Your task to perform on an android device: Open Google Image 0: 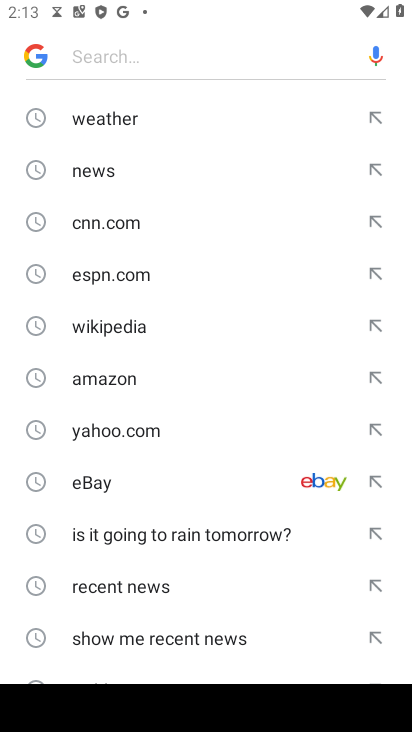
Step 0: press home button
Your task to perform on an android device: Open Google Image 1: 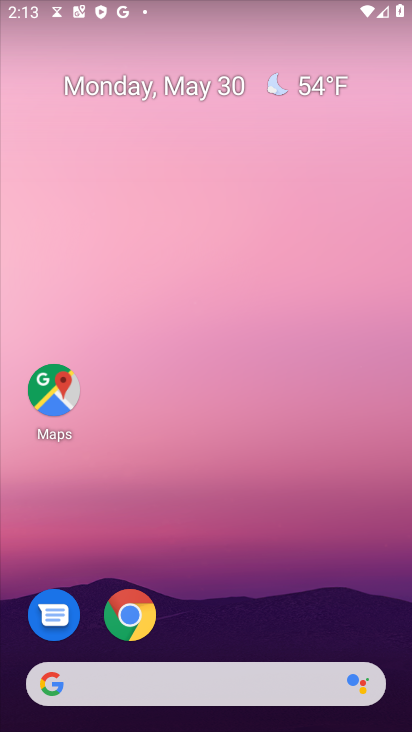
Step 1: drag from (287, 555) to (223, 82)
Your task to perform on an android device: Open Google Image 2: 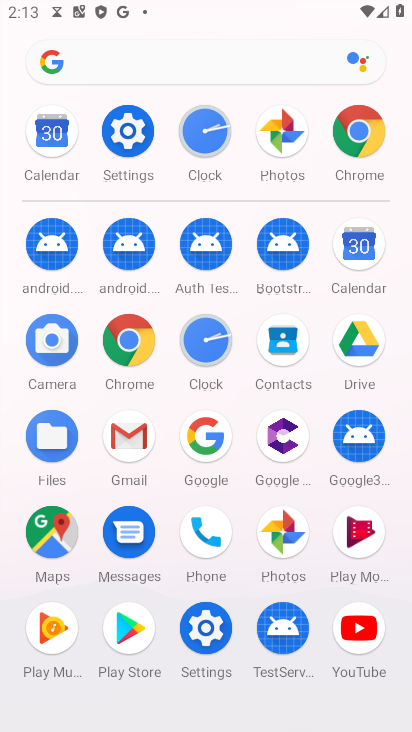
Step 2: click (203, 432)
Your task to perform on an android device: Open Google Image 3: 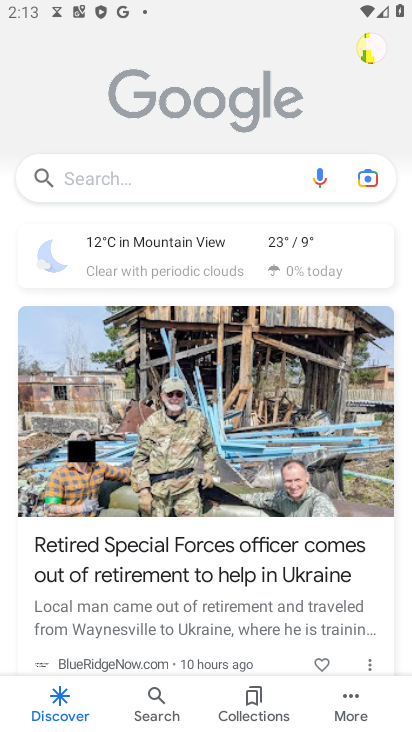
Step 3: task complete